Your task to perform on an android device: check battery use Image 0: 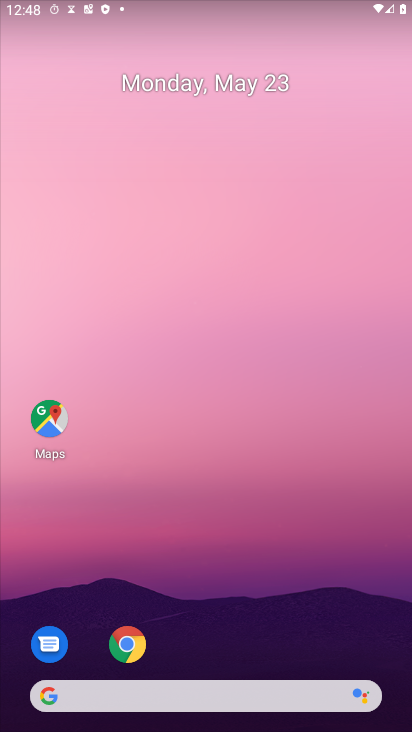
Step 0: drag from (261, 595) to (226, 10)
Your task to perform on an android device: check battery use Image 1: 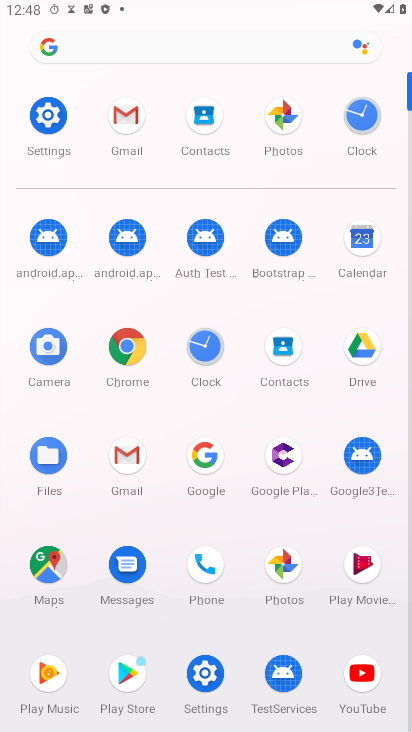
Step 1: click (47, 116)
Your task to perform on an android device: check battery use Image 2: 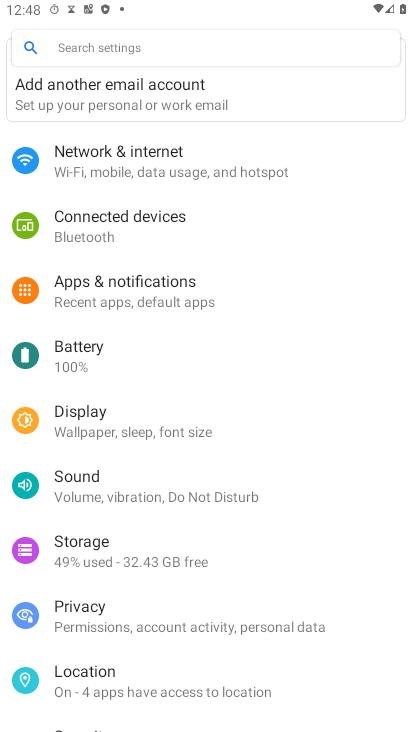
Step 2: click (83, 356)
Your task to perform on an android device: check battery use Image 3: 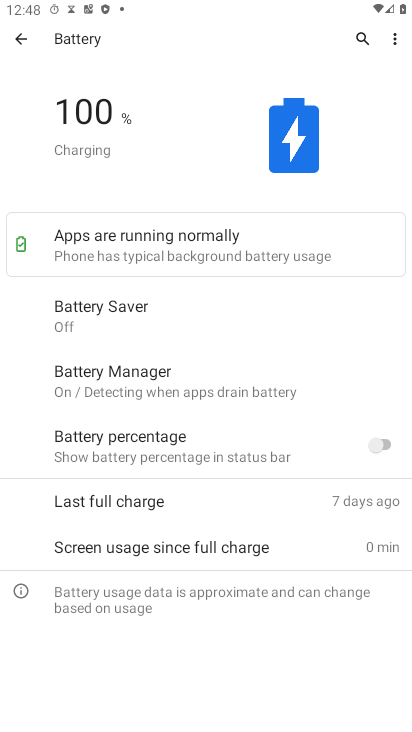
Step 3: click (391, 40)
Your task to perform on an android device: check battery use Image 4: 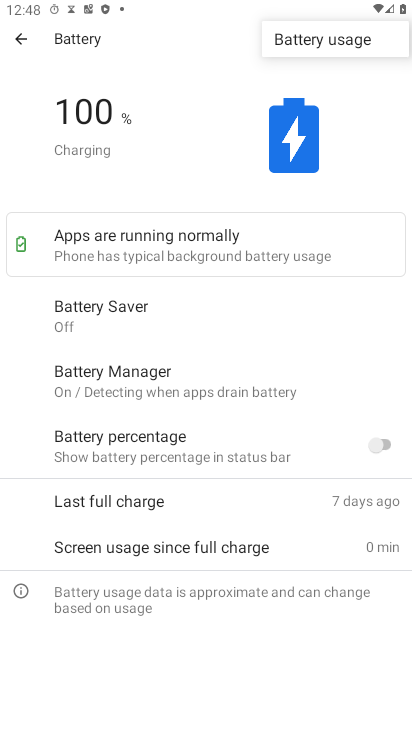
Step 4: click (323, 42)
Your task to perform on an android device: check battery use Image 5: 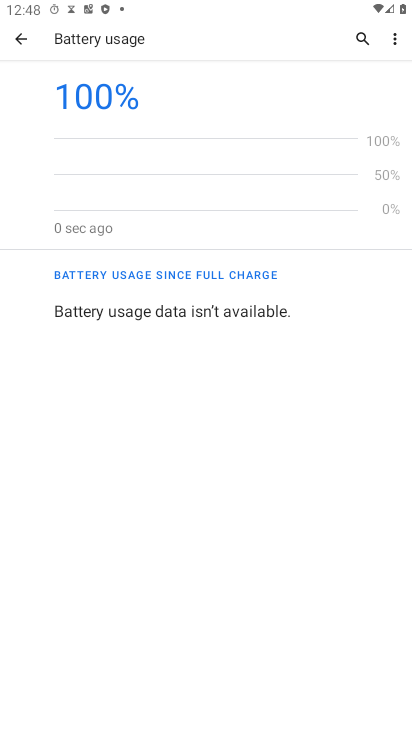
Step 5: task complete